Your task to perform on an android device: find snoozed emails in the gmail app Image 0: 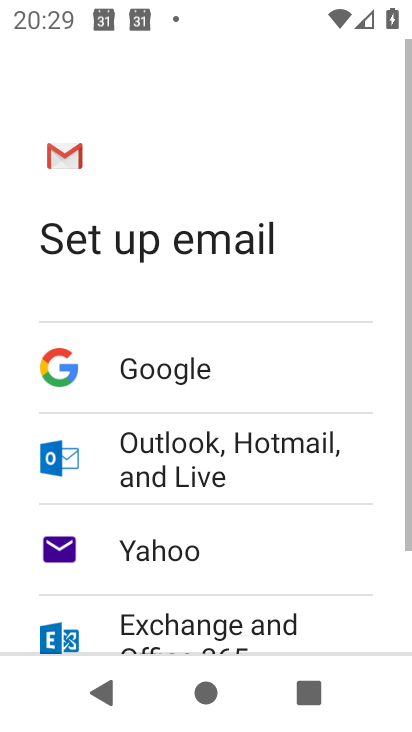
Step 0: press home button
Your task to perform on an android device: find snoozed emails in the gmail app Image 1: 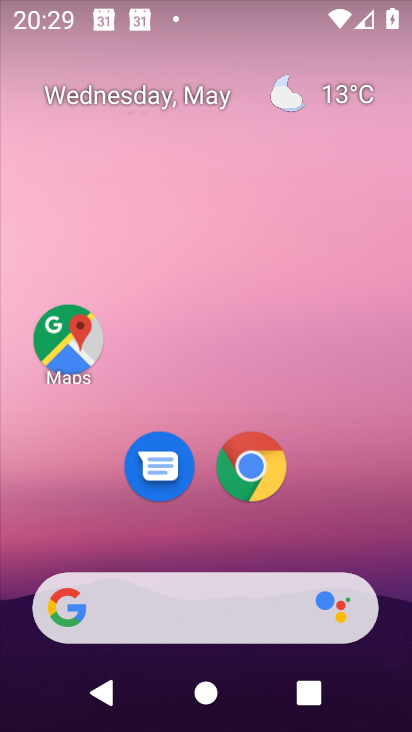
Step 1: drag from (206, 538) to (258, 87)
Your task to perform on an android device: find snoozed emails in the gmail app Image 2: 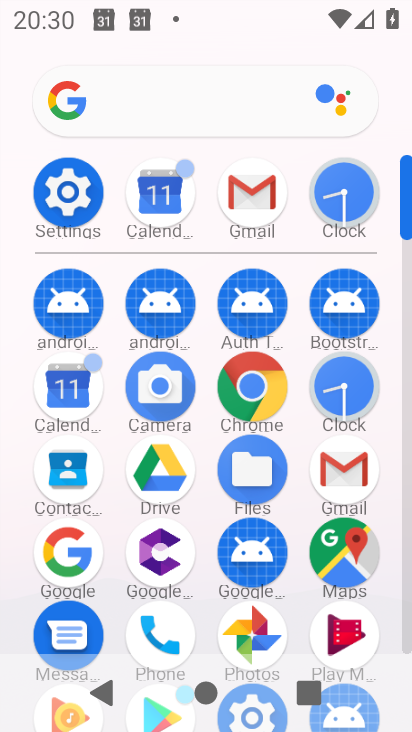
Step 2: click (341, 460)
Your task to perform on an android device: find snoozed emails in the gmail app Image 3: 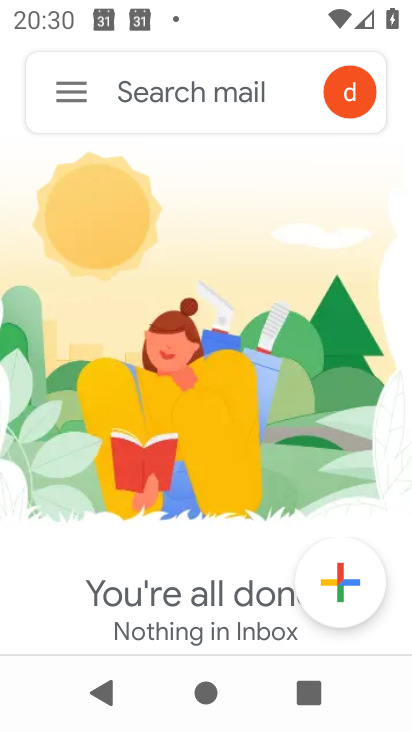
Step 3: click (72, 94)
Your task to perform on an android device: find snoozed emails in the gmail app Image 4: 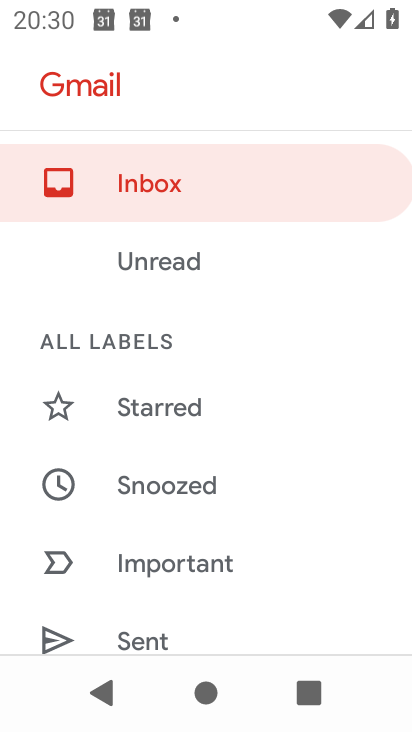
Step 4: click (224, 482)
Your task to perform on an android device: find snoozed emails in the gmail app Image 5: 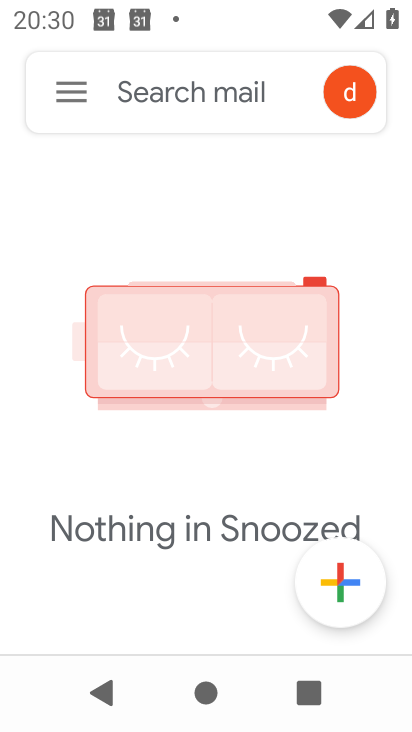
Step 5: task complete